Your task to perform on an android device: Search for logitech g pro on bestbuy, select the first entry, add it to the cart, then select checkout. Image 0: 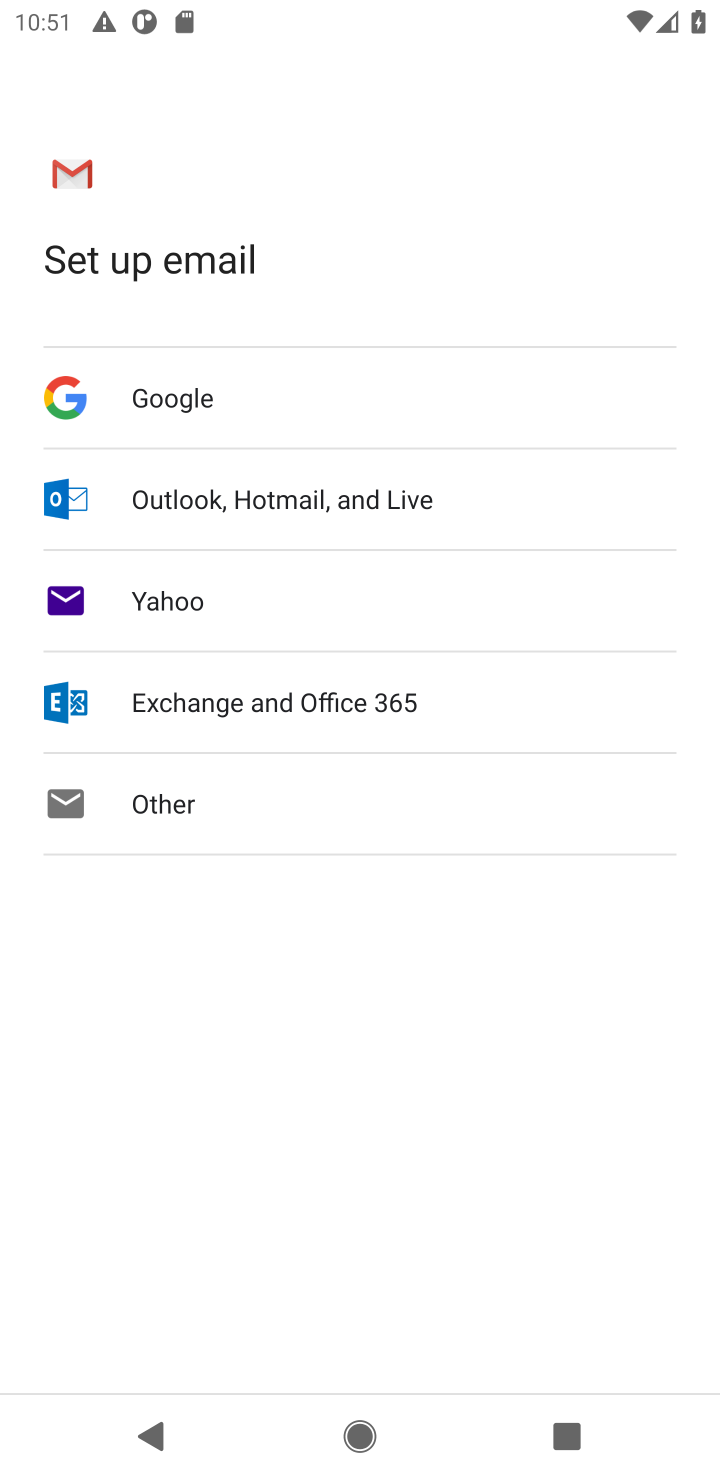
Step 0: press home button
Your task to perform on an android device: Search for logitech g pro on bestbuy, select the first entry, add it to the cart, then select checkout. Image 1: 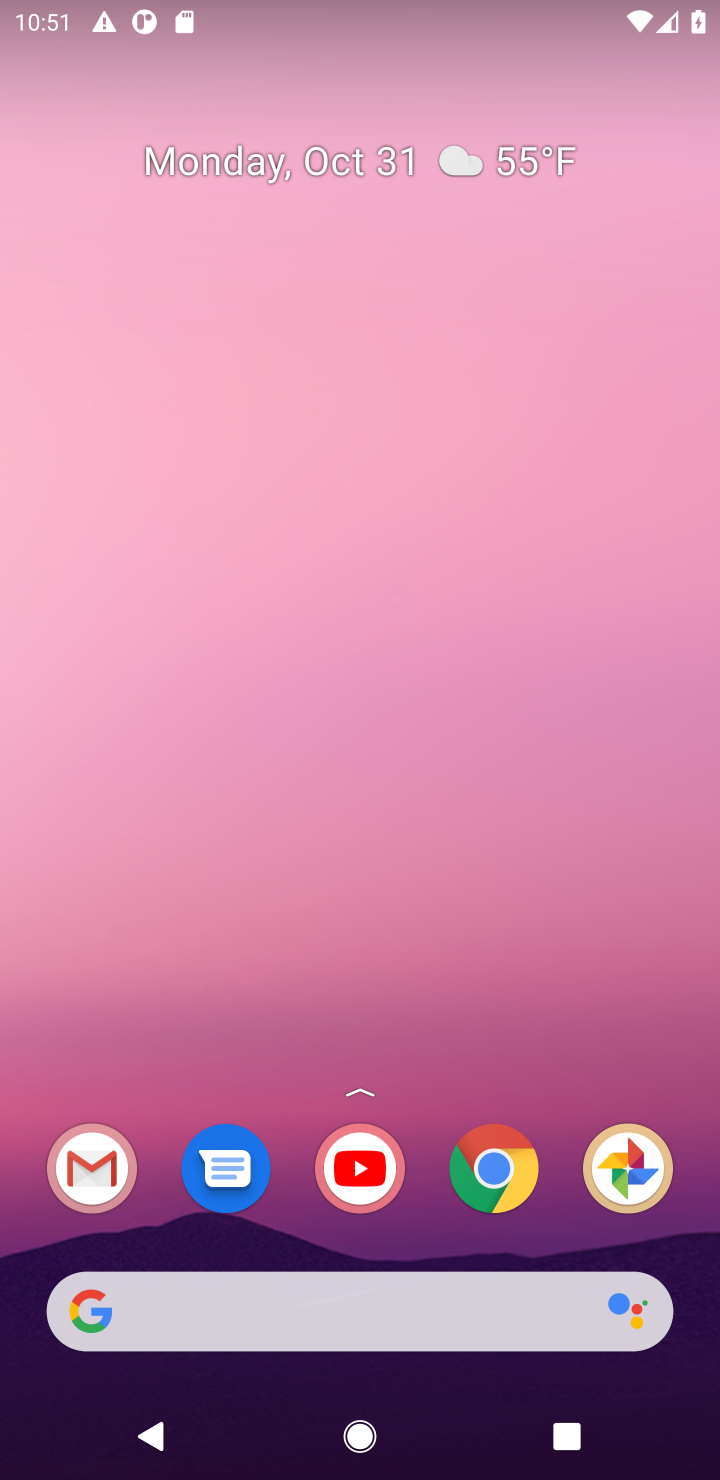
Step 1: click (500, 1187)
Your task to perform on an android device: Search for logitech g pro on bestbuy, select the first entry, add it to the cart, then select checkout. Image 2: 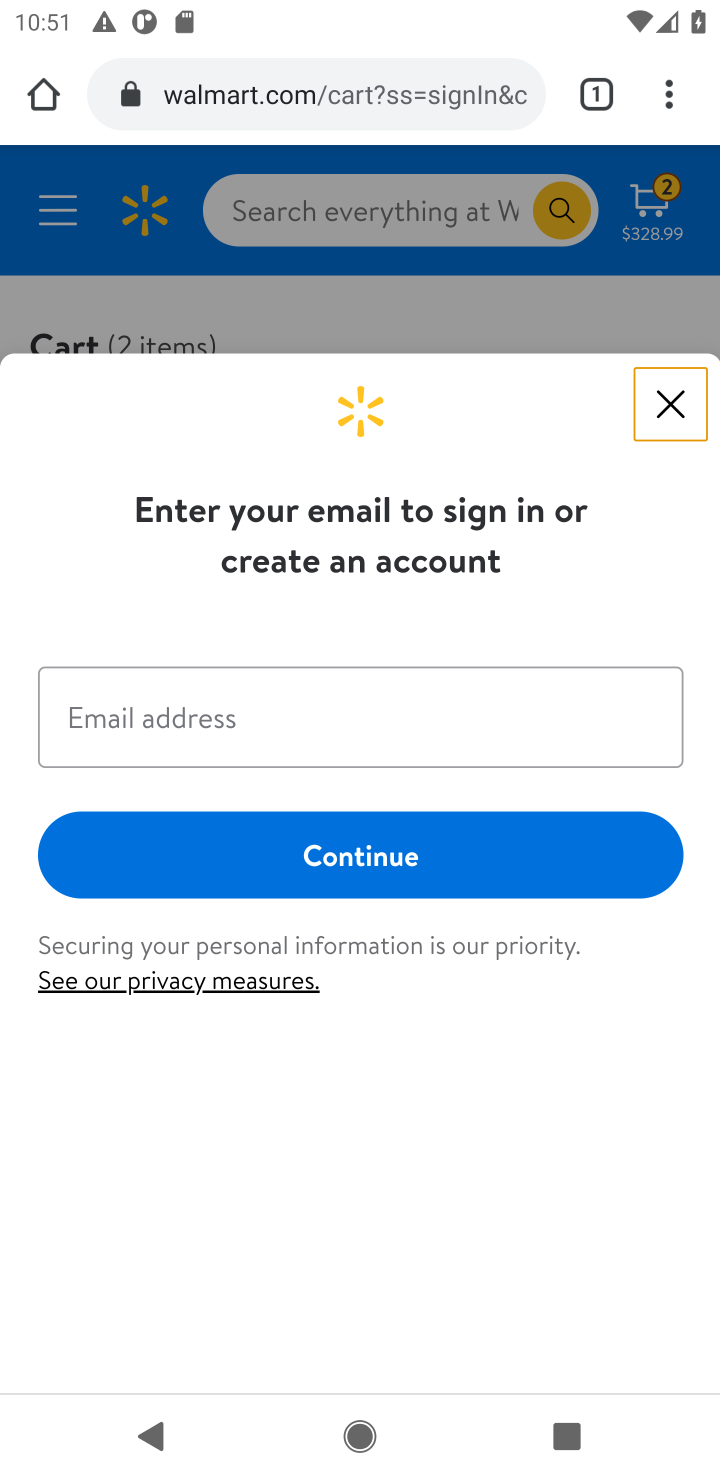
Step 2: click (415, 87)
Your task to perform on an android device: Search for logitech g pro on bestbuy, select the first entry, add it to the cart, then select checkout. Image 3: 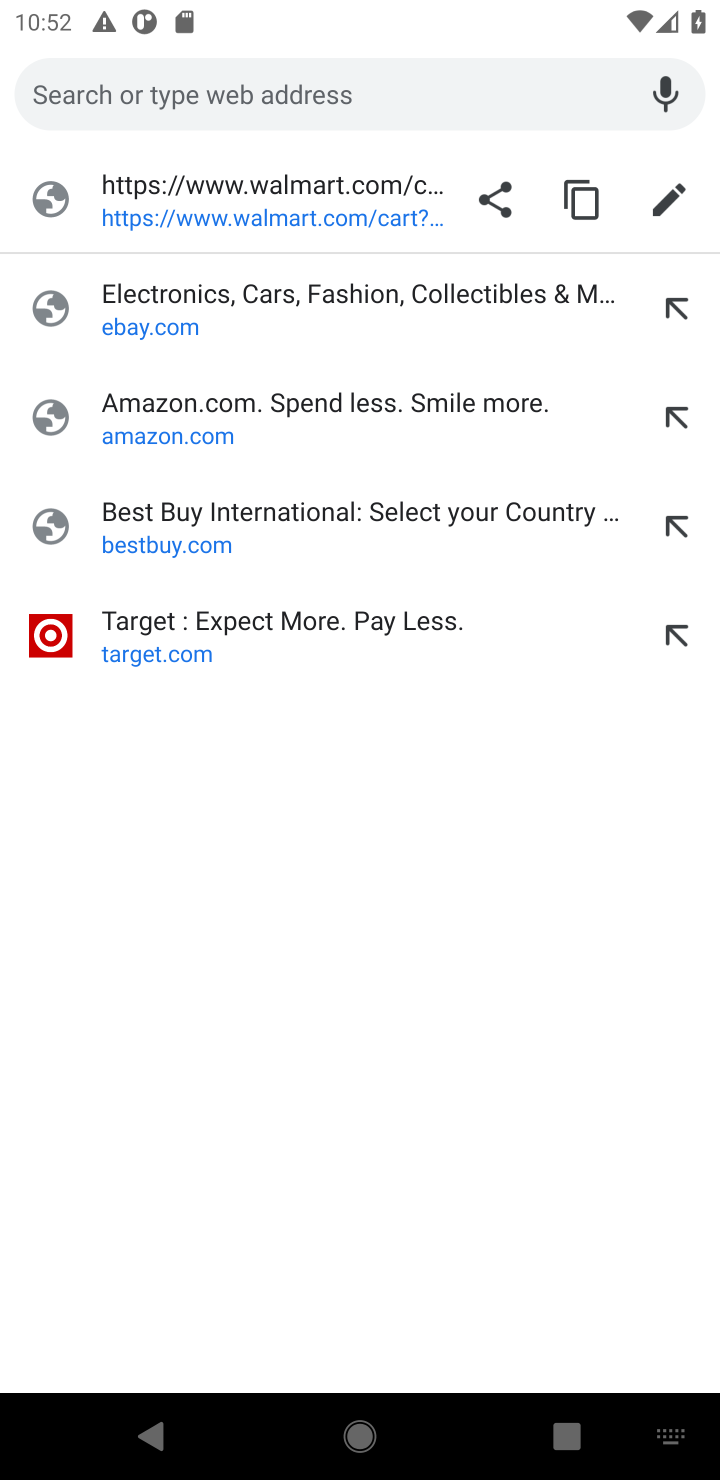
Step 3: type "bestbuy"
Your task to perform on an android device: Search for logitech g pro on bestbuy, select the first entry, add it to the cart, then select checkout. Image 4: 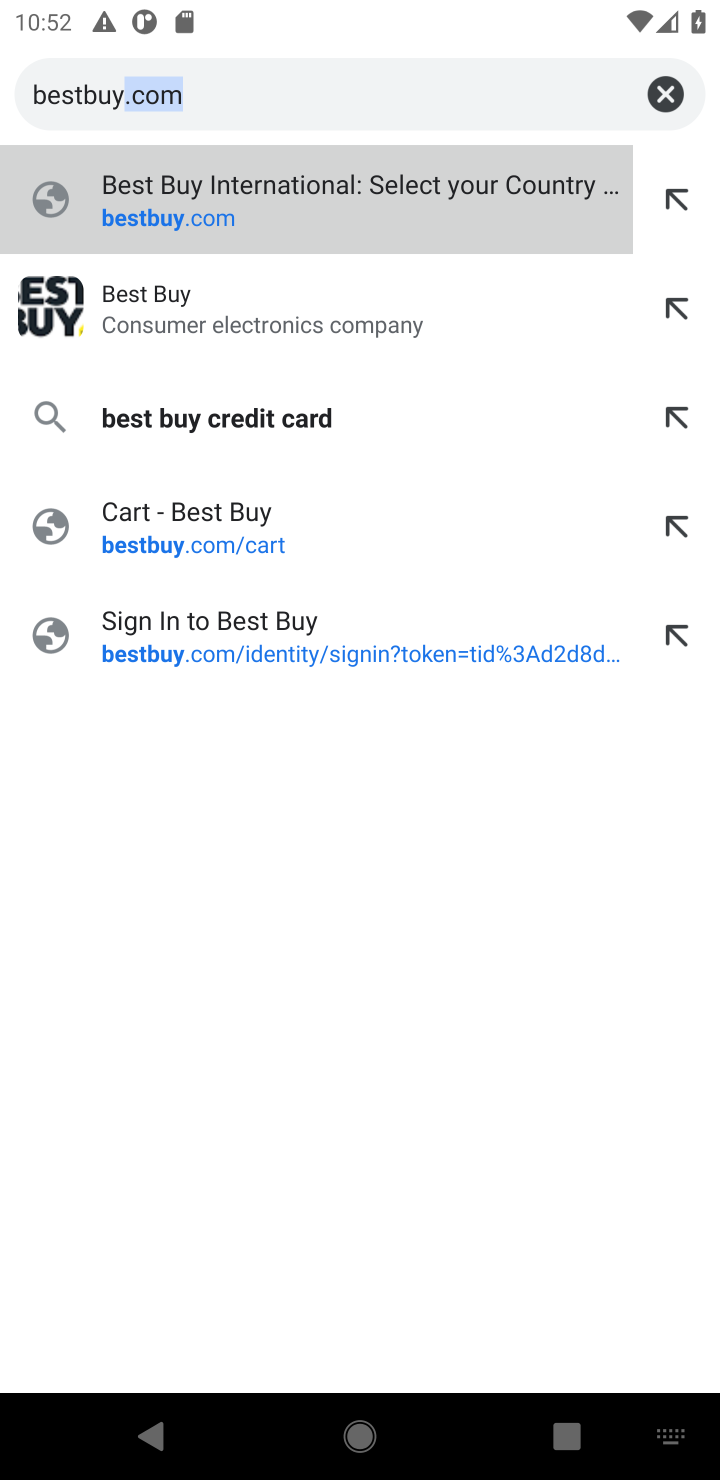
Step 4: press enter
Your task to perform on an android device: Search for logitech g pro on bestbuy, select the first entry, add it to the cart, then select checkout. Image 5: 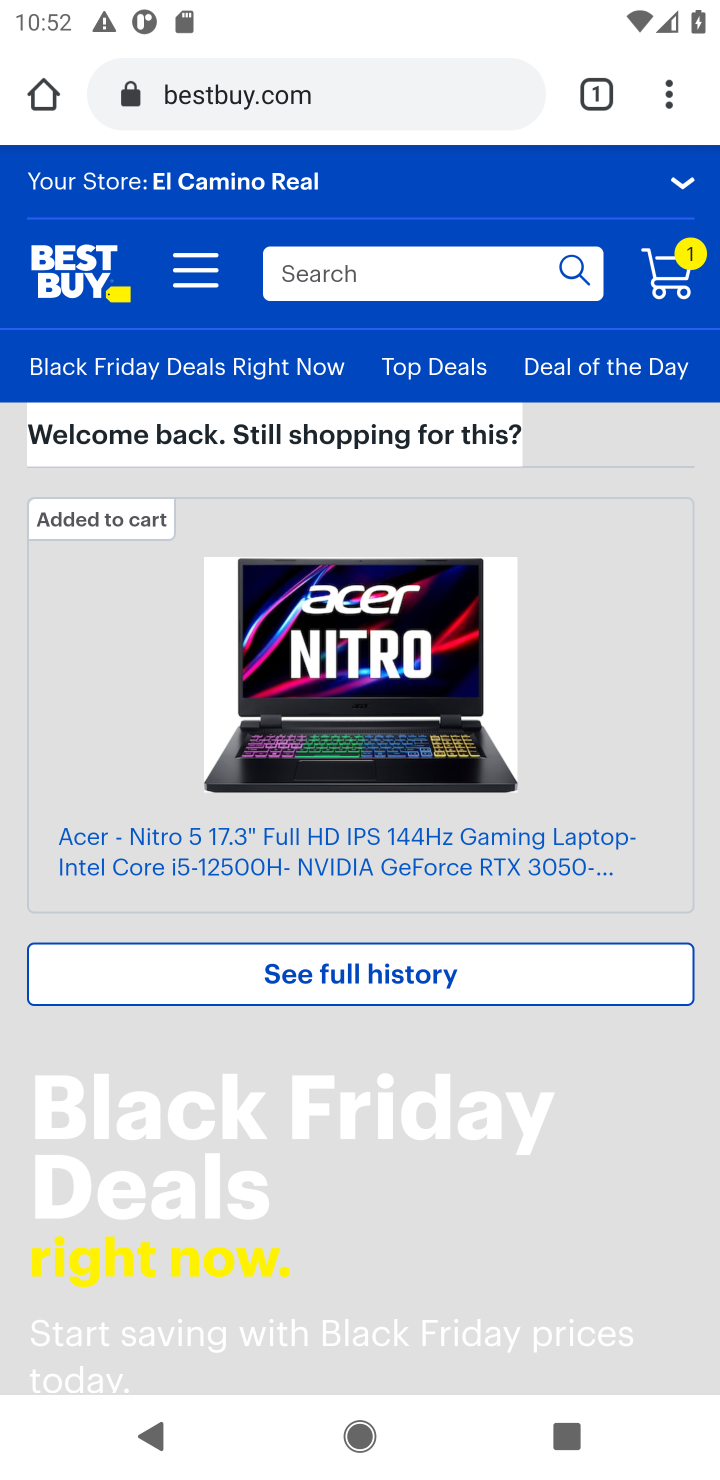
Step 5: click (458, 265)
Your task to perform on an android device: Search for logitech g pro on bestbuy, select the first entry, add it to the cart, then select checkout. Image 6: 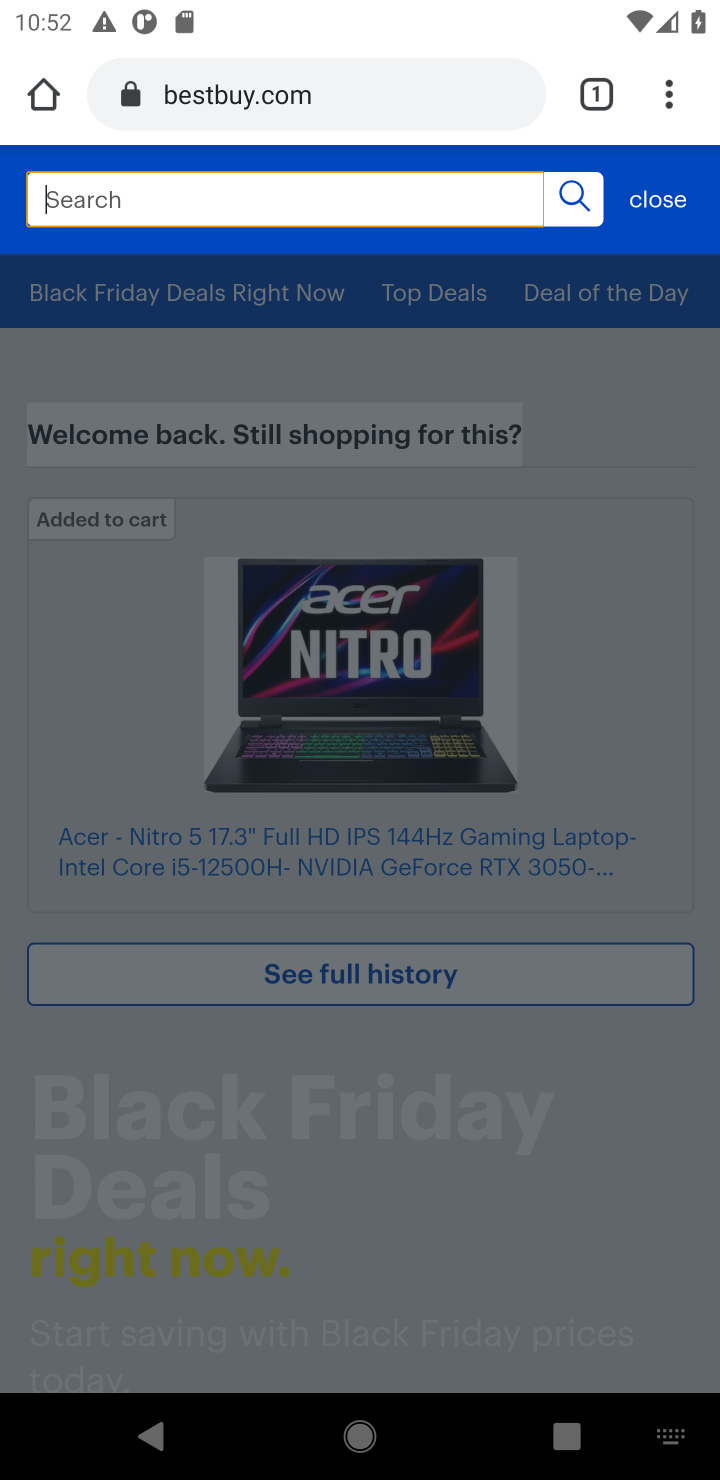
Step 6: type "logitech g pro"
Your task to perform on an android device: Search for logitech g pro on bestbuy, select the first entry, add it to the cart, then select checkout. Image 7: 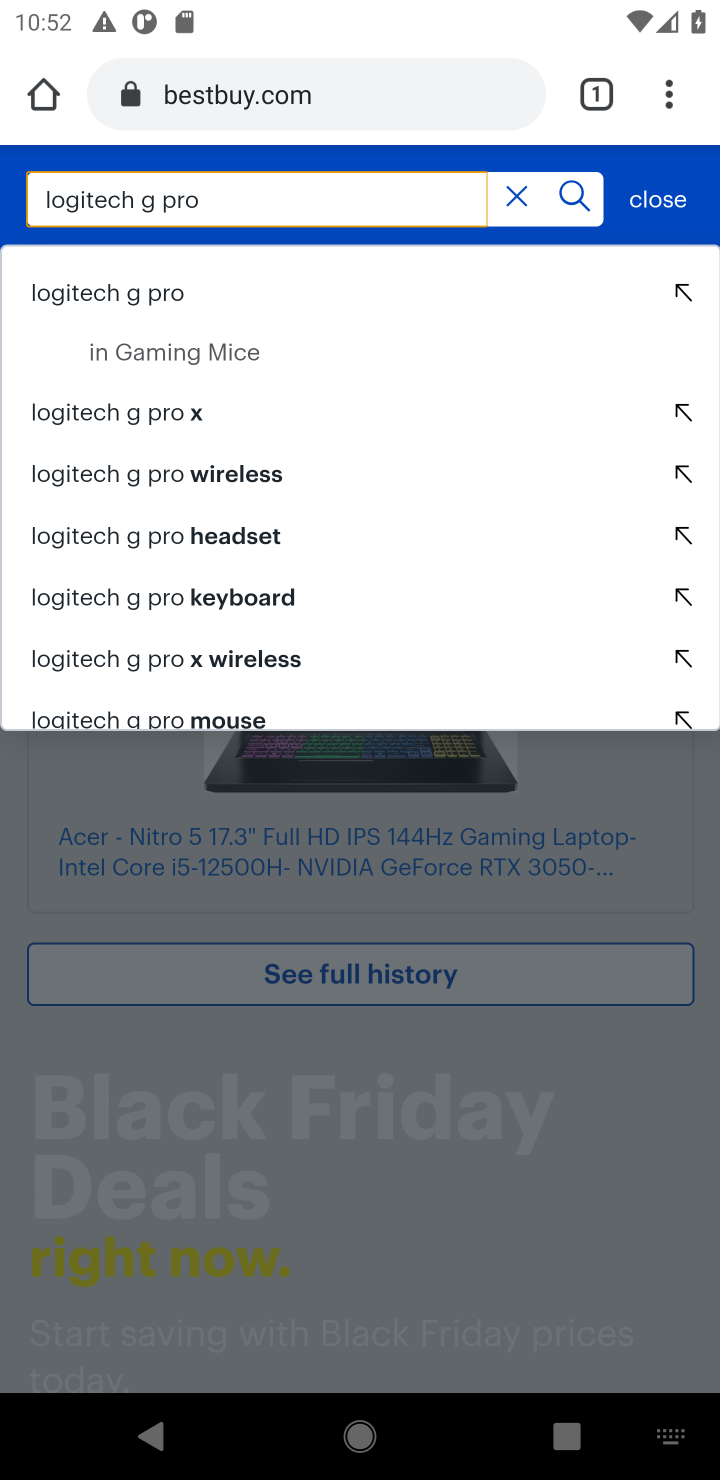
Step 7: click (138, 300)
Your task to perform on an android device: Search for logitech g pro on bestbuy, select the first entry, add it to the cart, then select checkout. Image 8: 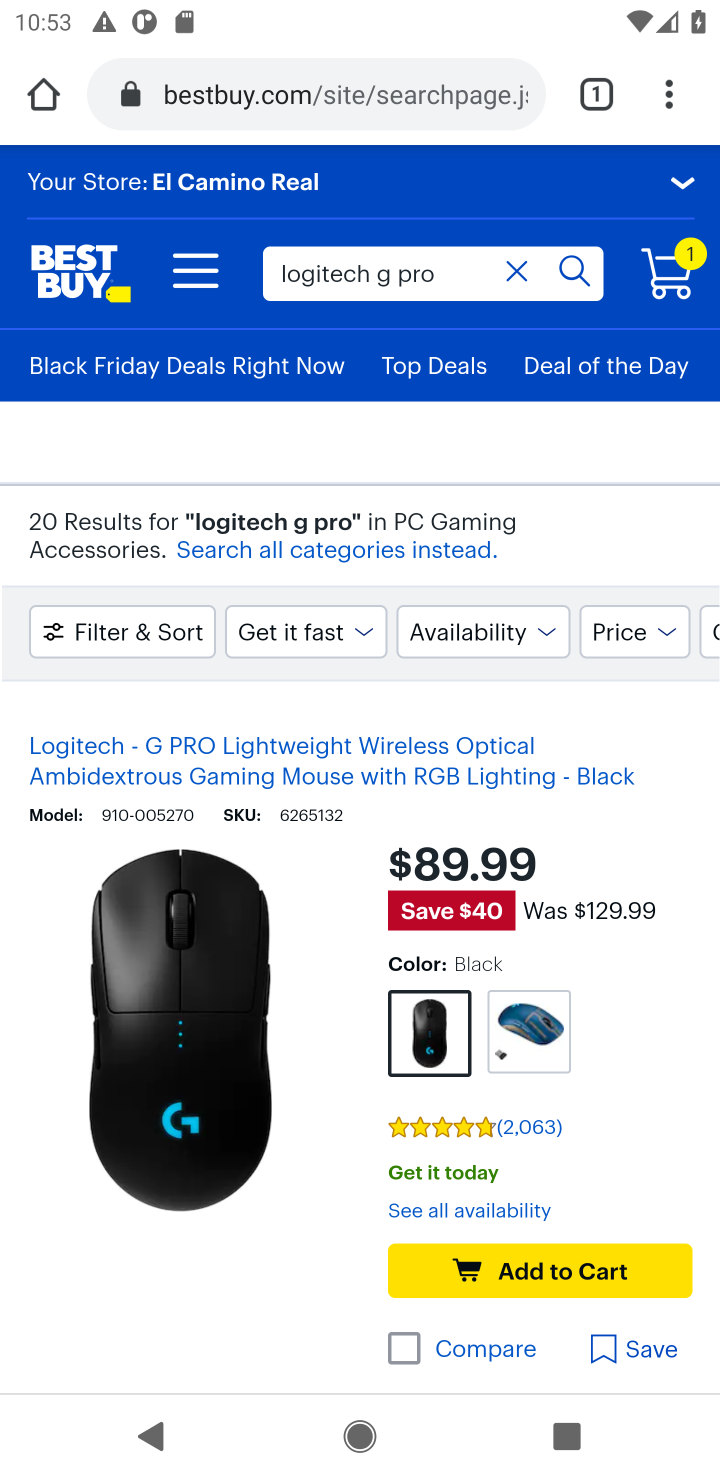
Step 8: click (171, 1019)
Your task to perform on an android device: Search for logitech g pro on bestbuy, select the first entry, add it to the cart, then select checkout. Image 9: 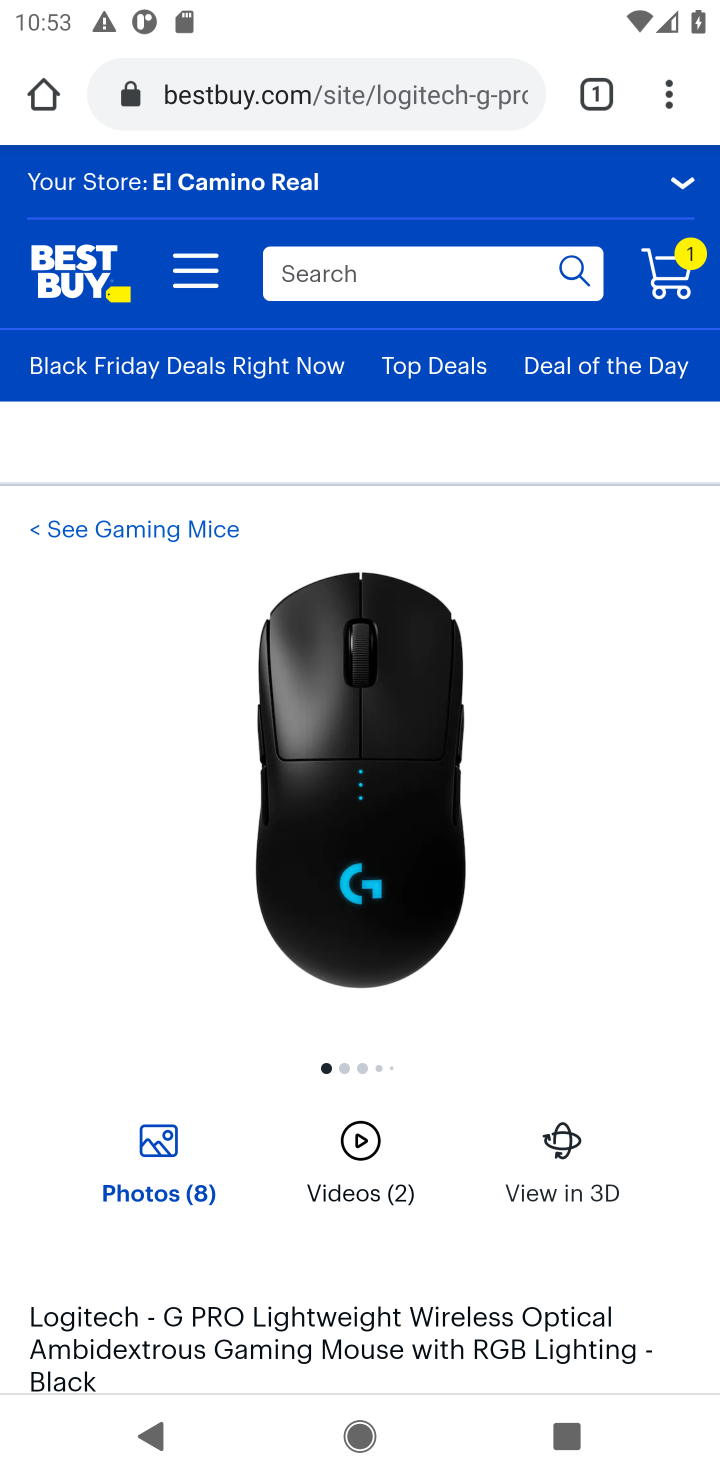
Step 9: drag from (506, 1257) to (442, 594)
Your task to perform on an android device: Search for logitech g pro on bestbuy, select the first entry, add it to the cart, then select checkout. Image 10: 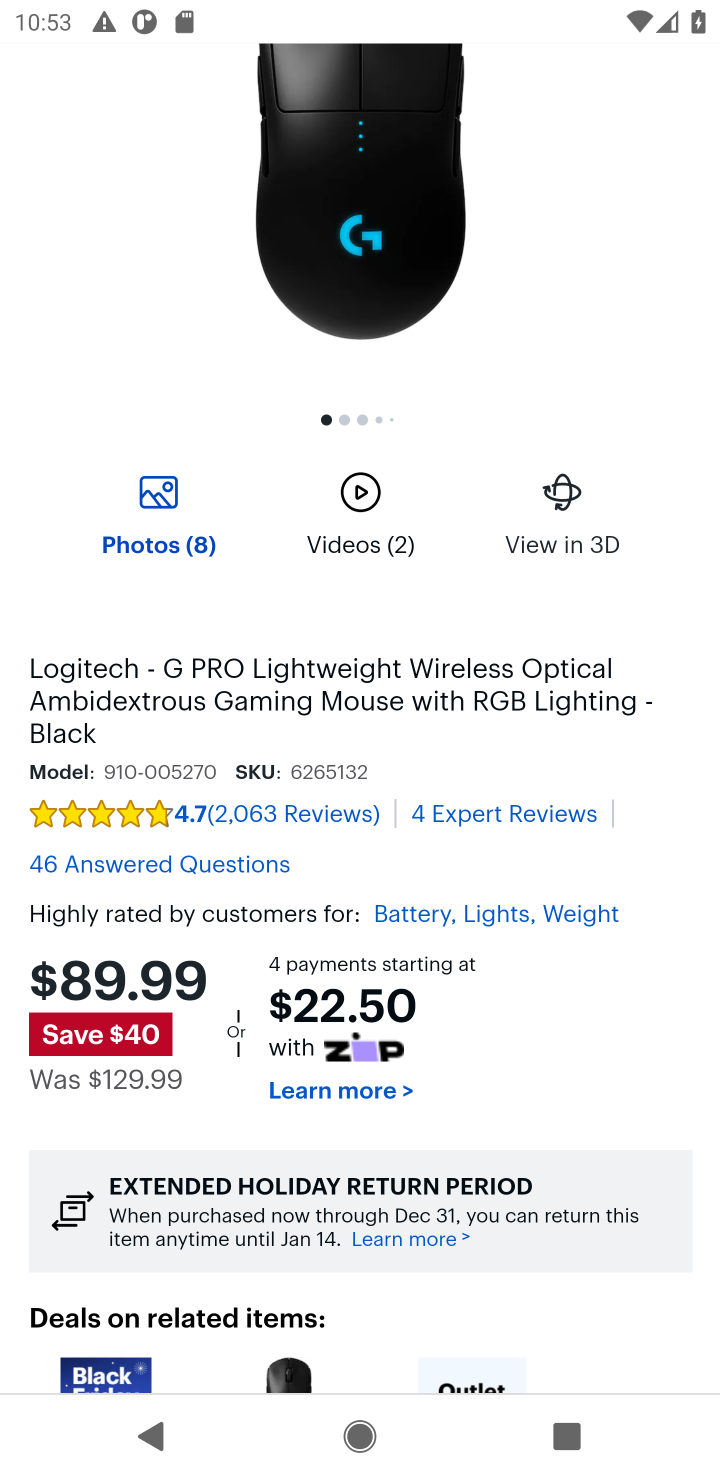
Step 10: drag from (517, 1050) to (288, 62)
Your task to perform on an android device: Search for logitech g pro on bestbuy, select the first entry, add it to the cart, then select checkout. Image 11: 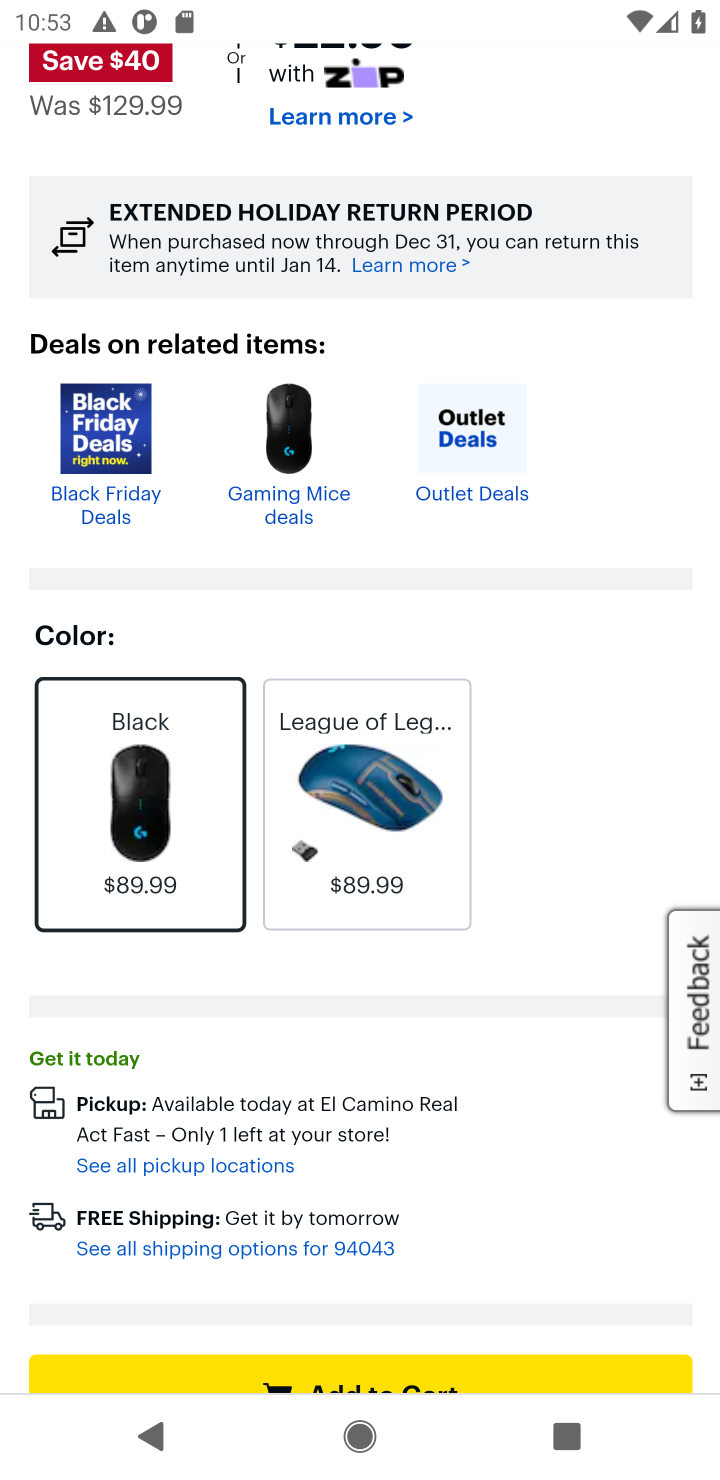
Step 11: drag from (564, 1346) to (549, 487)
Your task to perform on an android device: Search for logitech g pro on bestbuy, select the first entry, add it to the cart, then select checkout. Image 12: 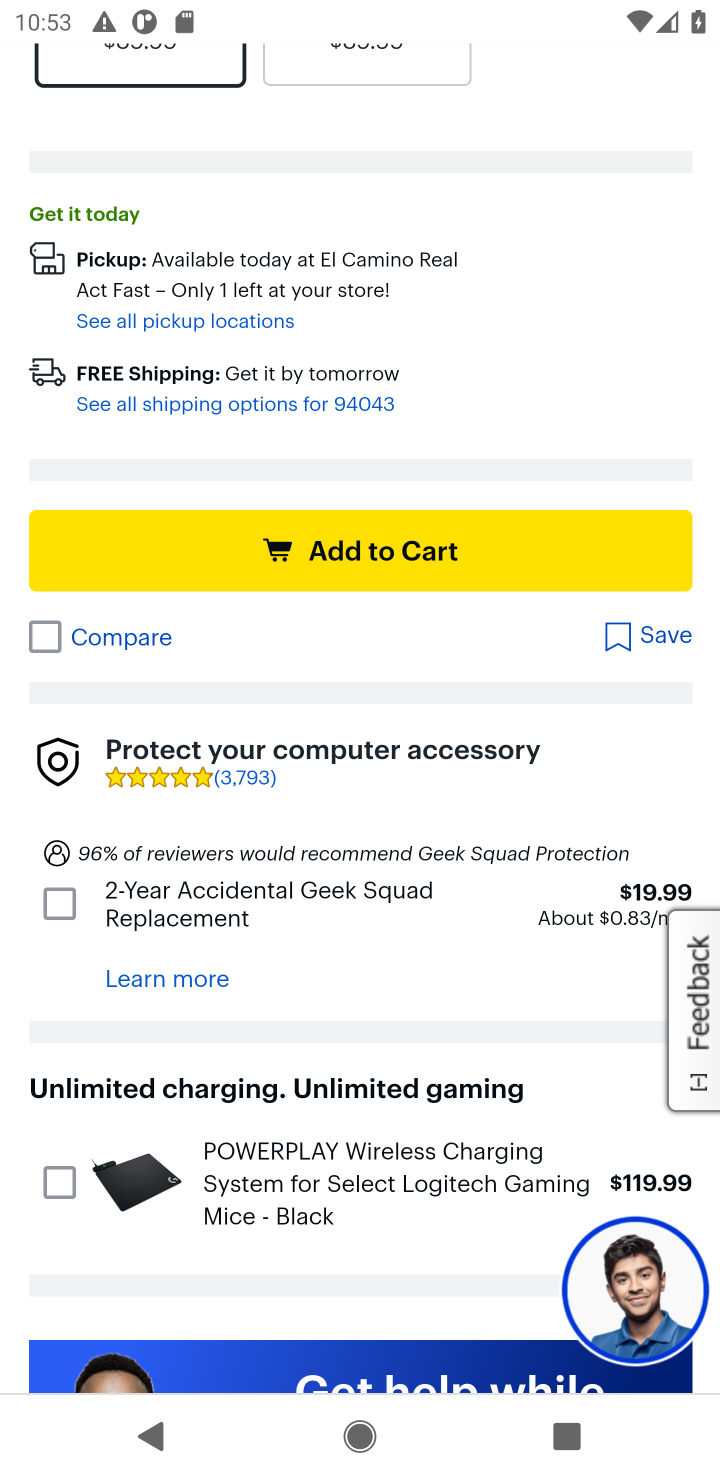
Step 12: click (407, 558)
Your task to perform on an android device: Search for logitech g pro on bestbuy, select the first entry, add it to the cart, then select checkout. Image 13: 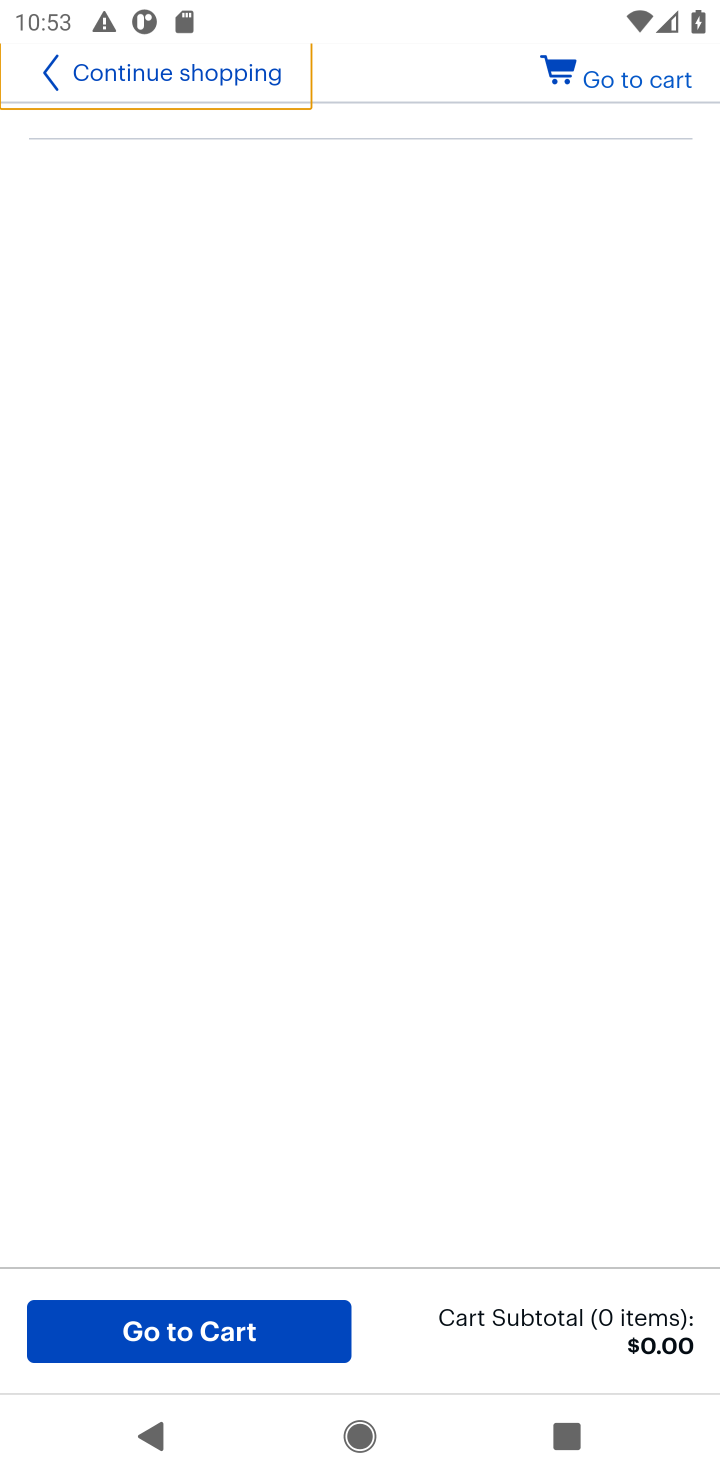
Step 13: click (616, 332)
Your task to perform on an android device: Search for logitech g pro on bestbuy, select the first entry, add it to the cart, then select checkout. Image 14: 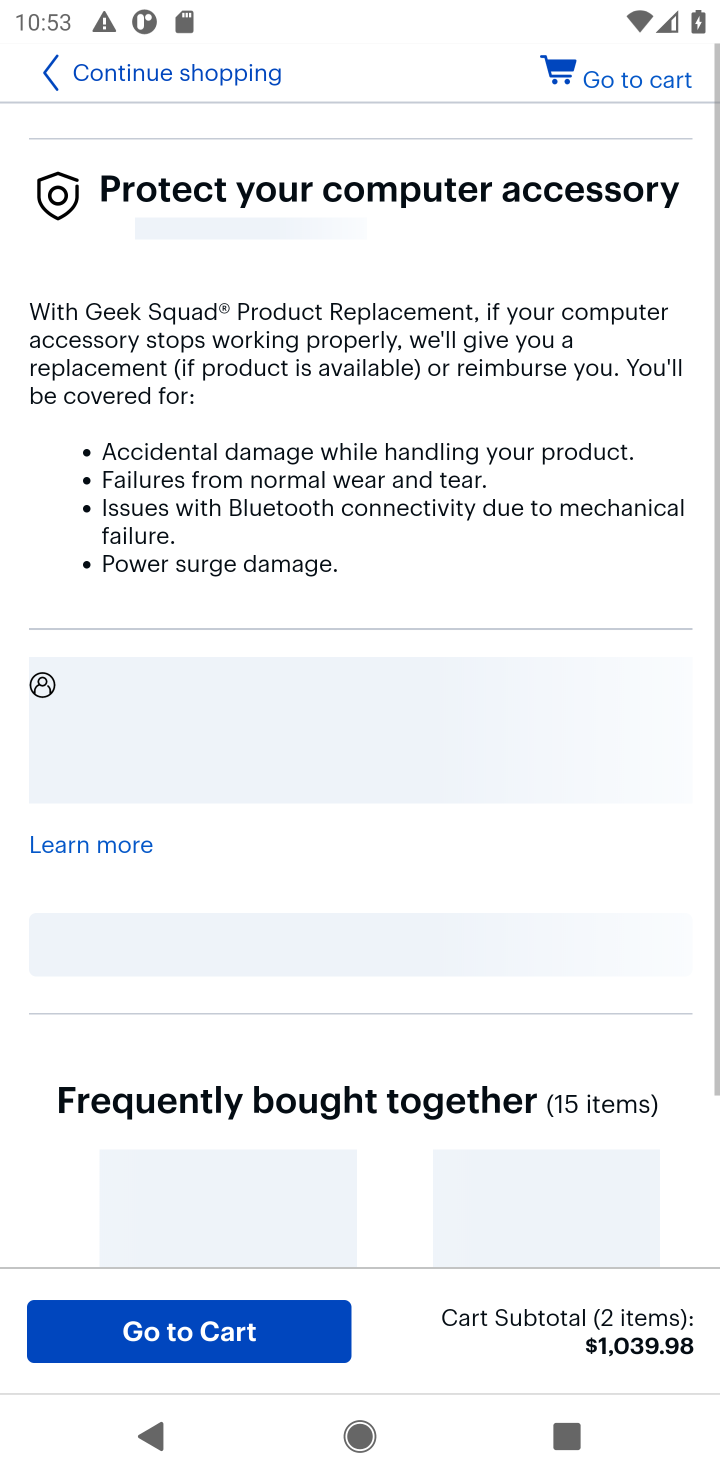
Step 14: click (211, 1326)
Your task to perform on an android device: Search for logitech g pro on bestbuy, select the first entry, add it to the cart, then select checkout. Image 15: 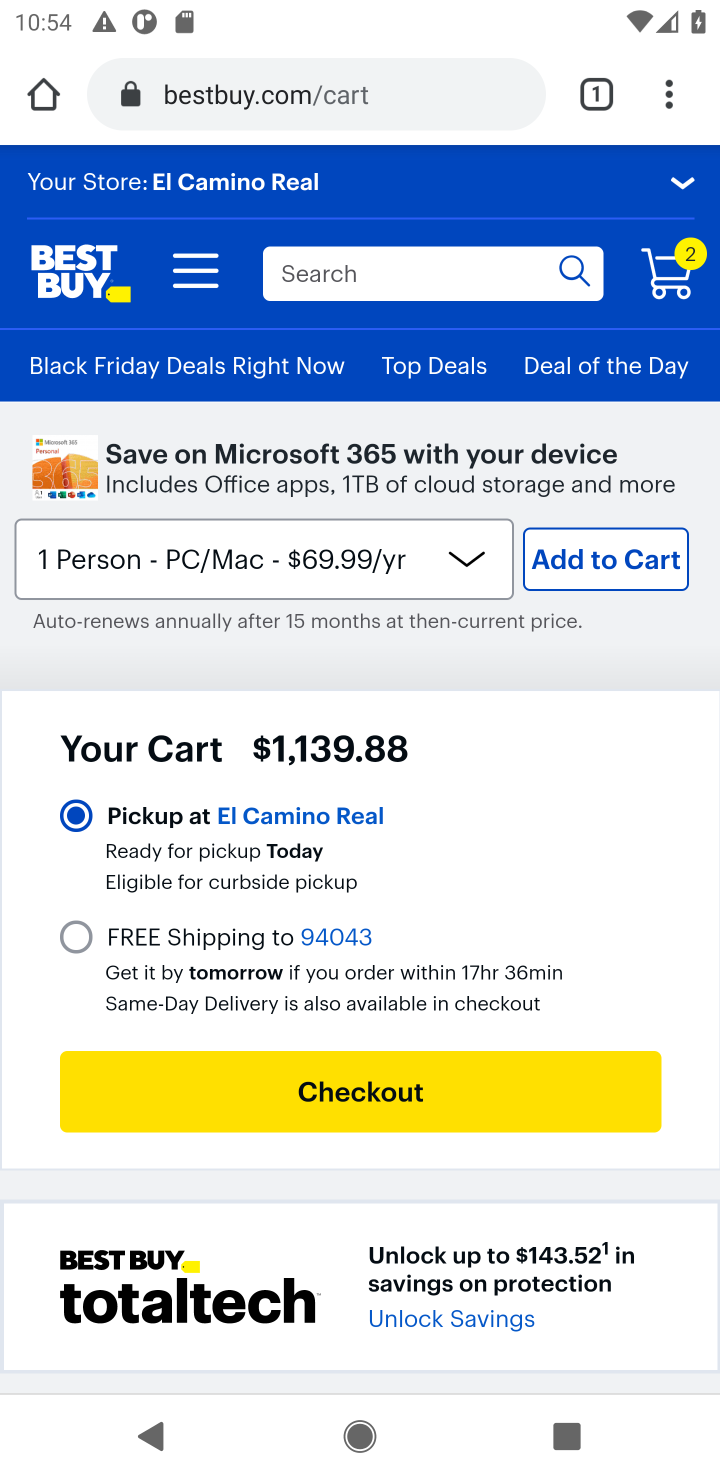
Step 15: click (315, 1092)
Your task to perform on an android device: Search for logitech g pro on bestbuy, select the first entry, add it to the cart, then select checkout. Image 16: 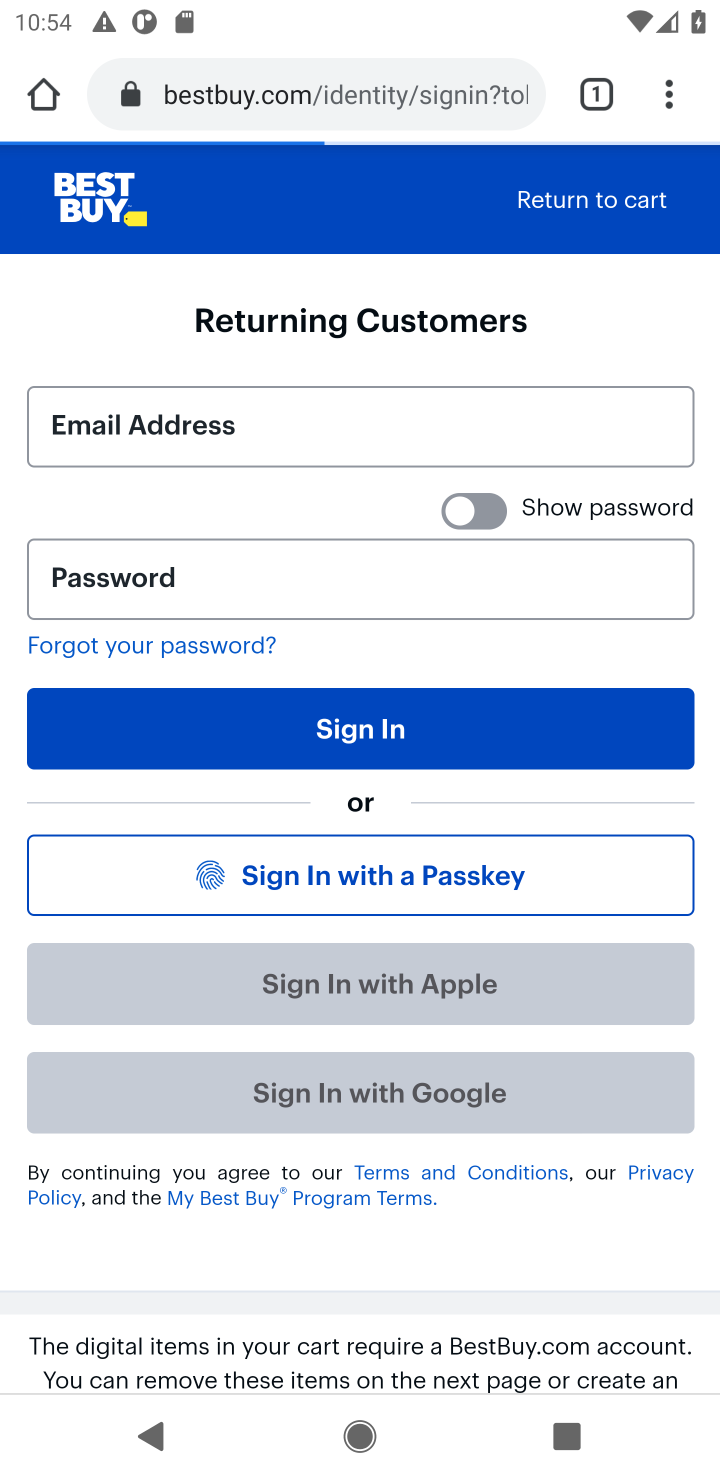
Step 16: task complete